Your task to perform on an android device: Open Yahoo.com Image 0: 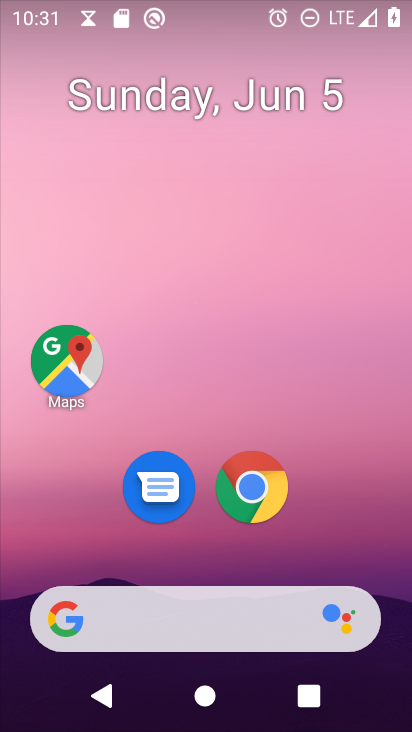
Step 0: click (244, 477)
Your task to perform on an android device: Open Yahoo.com Image 1: 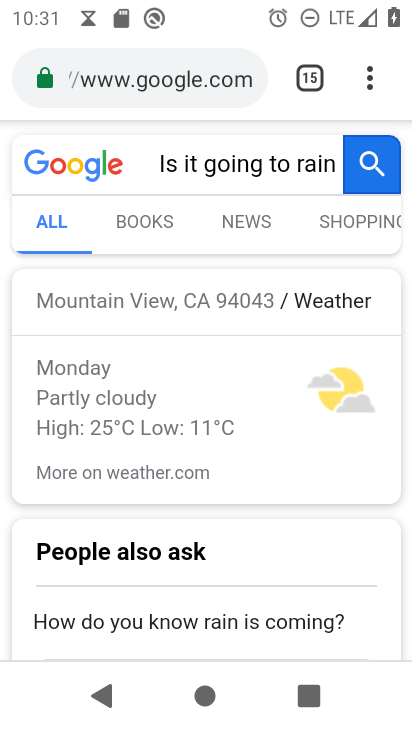
Step 1: click (347, 63)
Your task to perform on an android device: Open Yahoo.com Image 2: 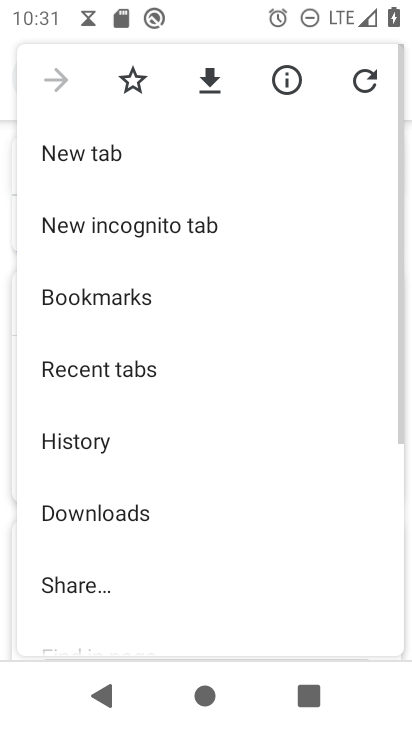
Step 2: click (85, 138)
Your task to perform on an android device: Open Yahoo.com Image 3: 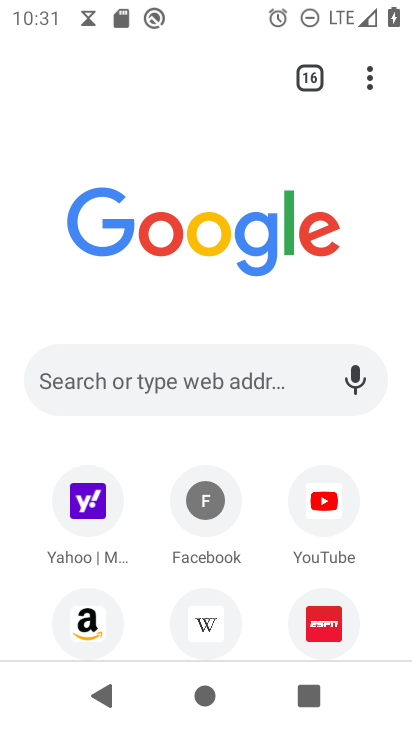
Step 3: click (87, 498)
Your task to perform on an android device: Open Yahoo.com Image 4: 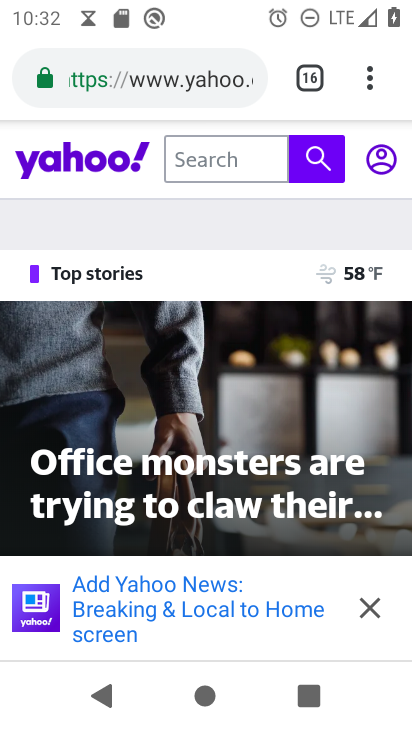
Step 4: task complete